Your task to perform on an android device: manage bookmarks in the chrome app Image 0: 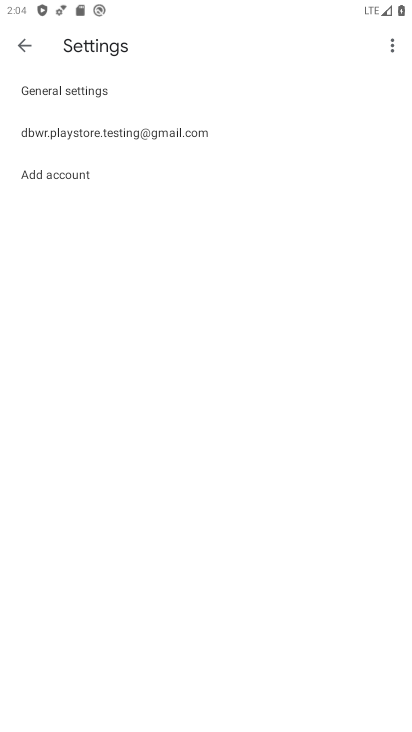
Step 0: press home button
Your task to perform on an android device: manage bookmarks in the chrome app Image 1: 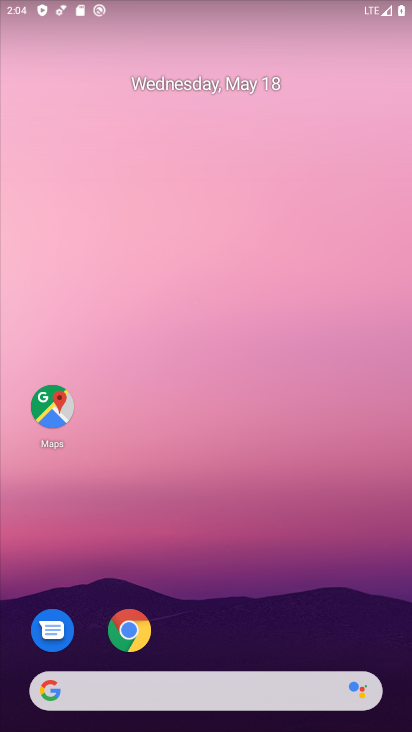
Step 1: click (151, 634)
Your task to perform on an android device: manage bookmarks in the chrome app Image 2: 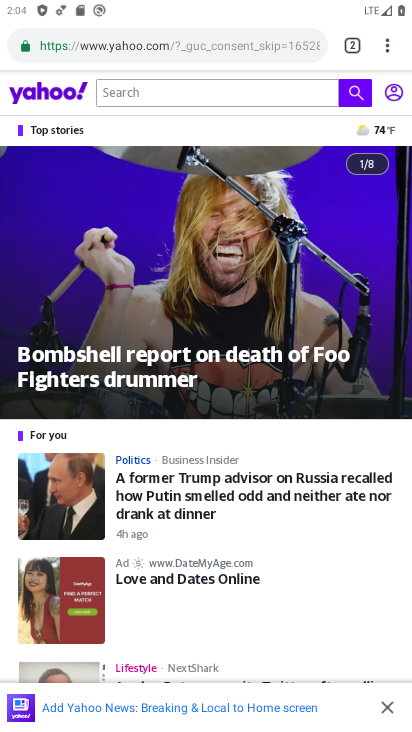
Step 2: click (389, 45)
Your task to perform on an android device: manage bookmarks in the chrome app Image 3: 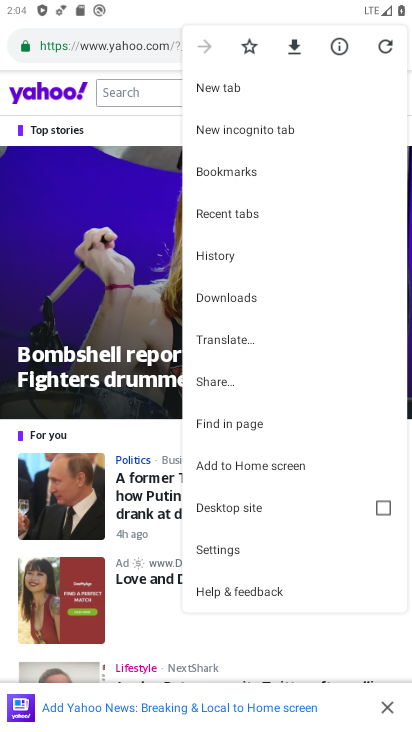
Step 3: click (258, 170)
Your task to perform on an android device: manage bookmarks in the chrome app Image 4: 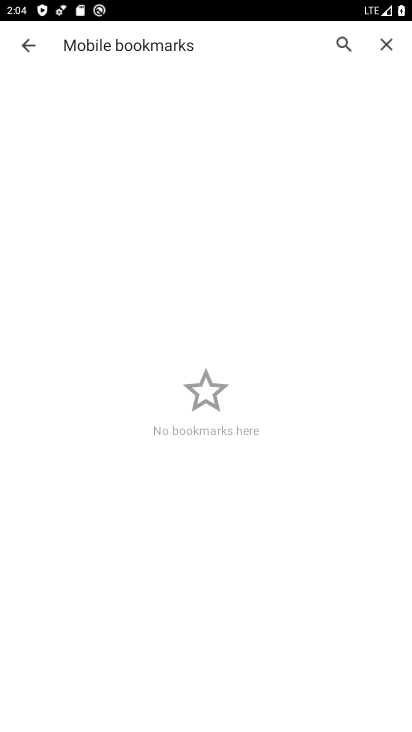
Step 4: task complete